Your task to perform on an android device: Open the calendar app, open the side menu, and click the "Day" option Image 0: 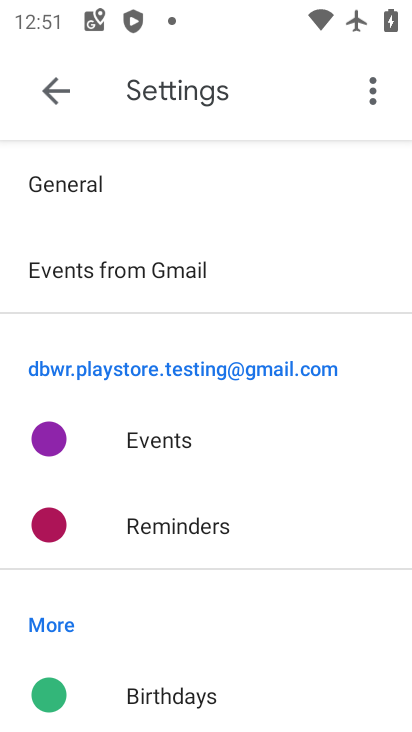
Step 0: press home button
Your task to perform on an android device: Open the calendar app, open the side menu, and click the "Day" option Image 1: 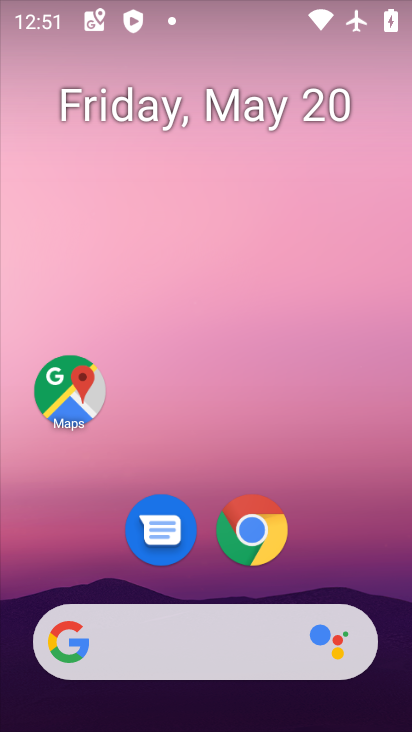
Step 1: drag from (188, 500) to (224, 131)
Your task to perform on an android device: Open the calendar app, open the side menu, and click the "Day" option Image 2: 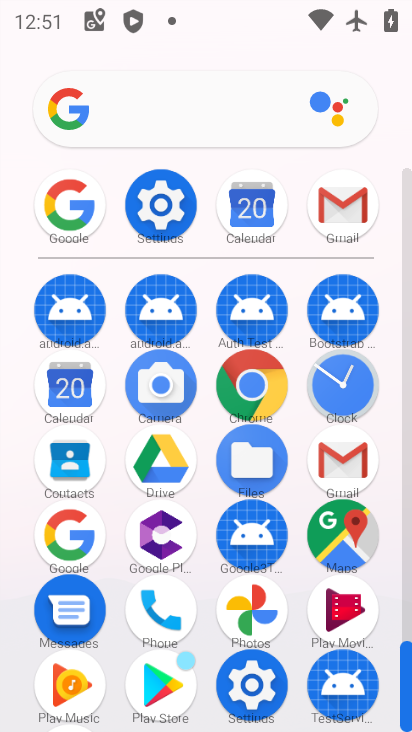
Step 2: click (62, 395)
Your task to perform on an android device: Open the calendar app, open the side menu, and click the "Day" option Image 3: 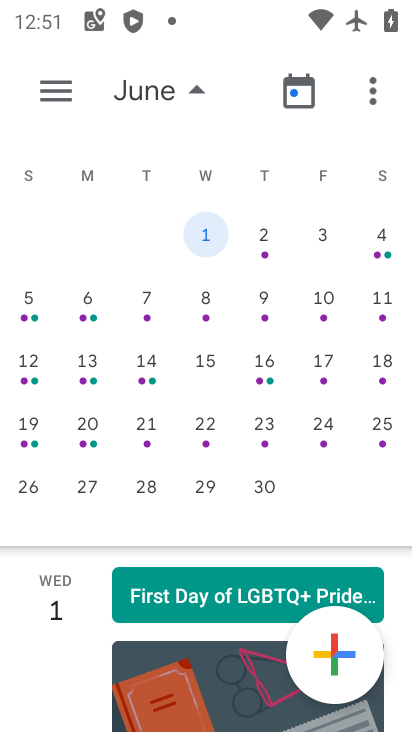
Step 3: click (56, 86)
Your task to perform on an android device: Open the calendar app, open the side menu, and click the "Day" option Image 4: 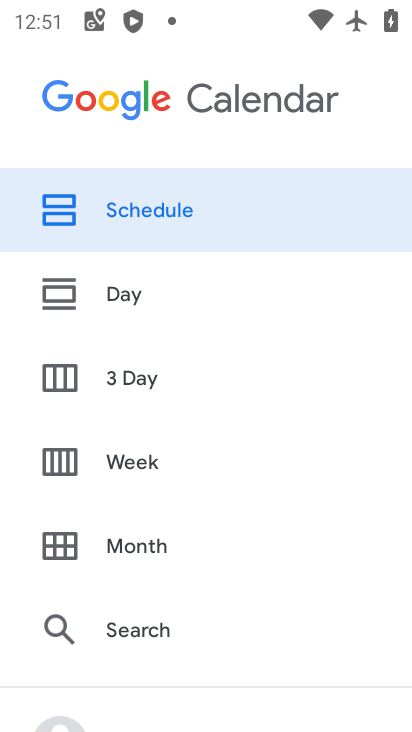
Step 4: click (131, 291)
Your task to perform on an android device: Open the calendar app, open the side menu, and click the "Day" option Image 5: 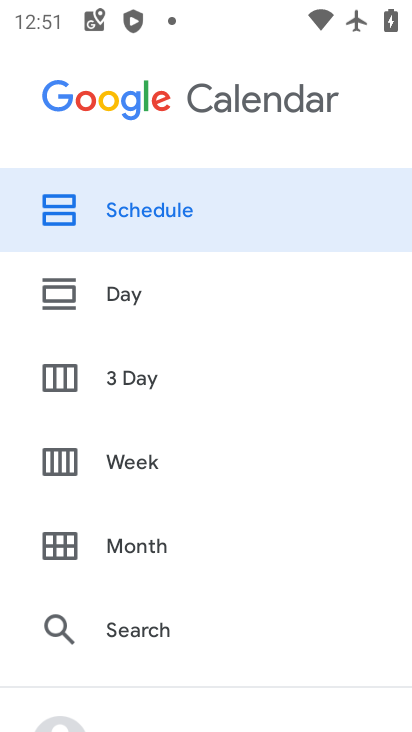
Step 5: click (131, 291)
Your task to perform on an android device: Open the calendar app, open the side menu, and click the "Day" option Image 6: 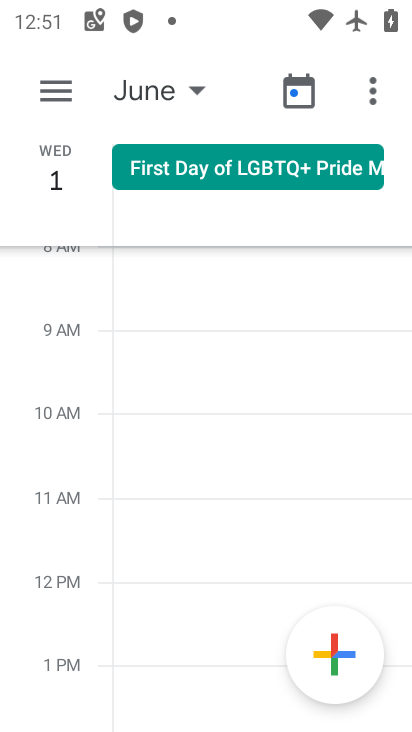
Step 6: task complete